Your task to perform on an android device: toggle notifications settings in the gmail app Image 0: 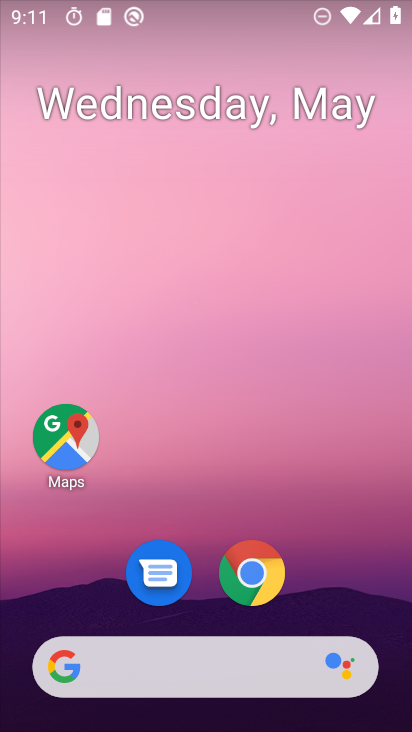
Step 0: drag from (396, 615) to (381, 208)
Your task to perform on an android device: toggle notifications settings in the gmail app Image 1: 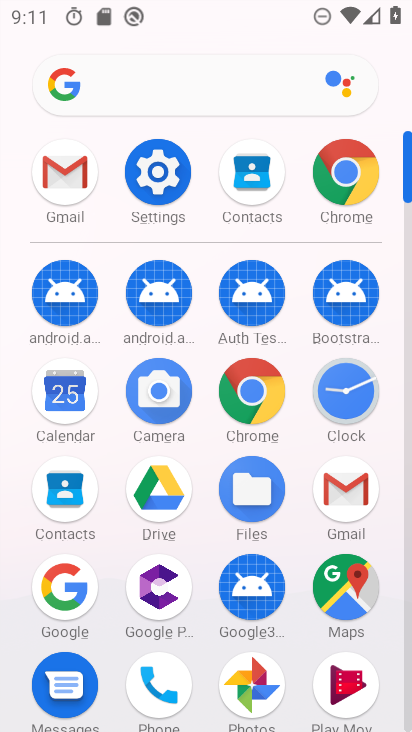
Step 1: click (350, 483)
Your task to perform on an android device: toggle notifications settings in the gmail app Image 2: 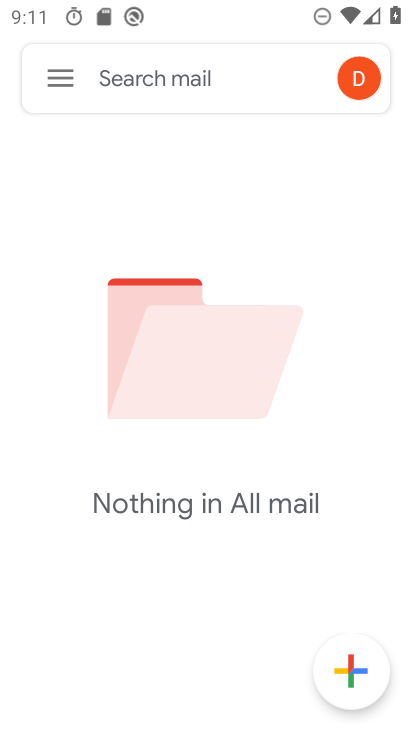
Step 2: click (67, 76)
Your task to perform on an android device: toggle notifications settings in the gmail app Image 3: 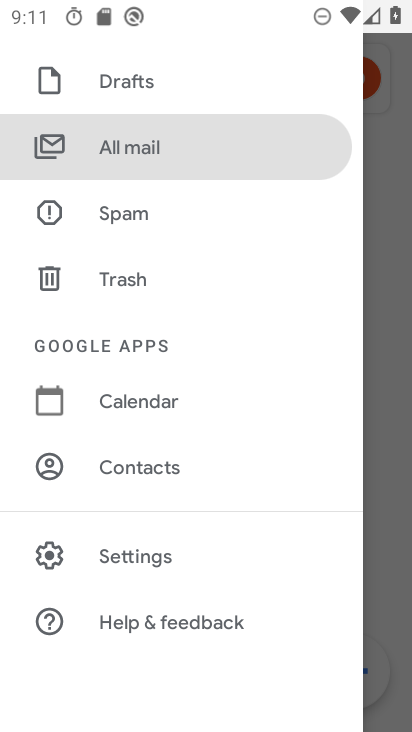
Step 3: click (140, 550)
Your task to perform on an android device: toggle notifications settings in the gmail app Image 4: 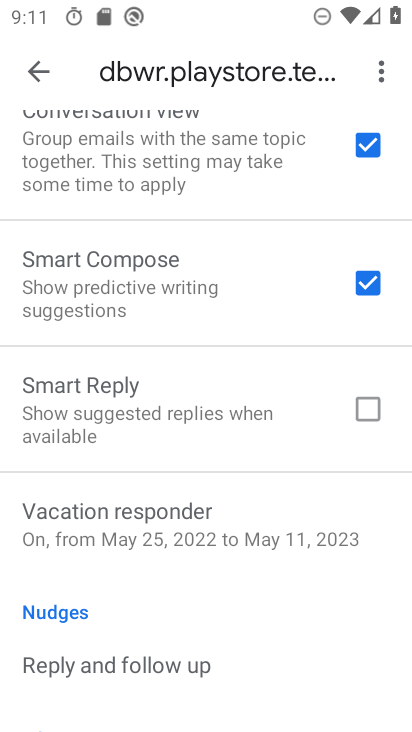
Step 4: click (32, 78)
Your task to perform on an android device: toggle notifications settings in the gmail app Image 5: 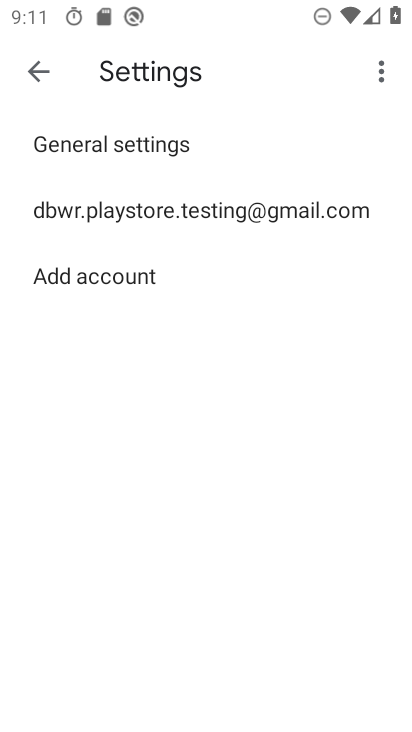
Step 5: click (65, 146)
Your task to perform on an android device: toggle notifications settings in the gmail app Image 6: 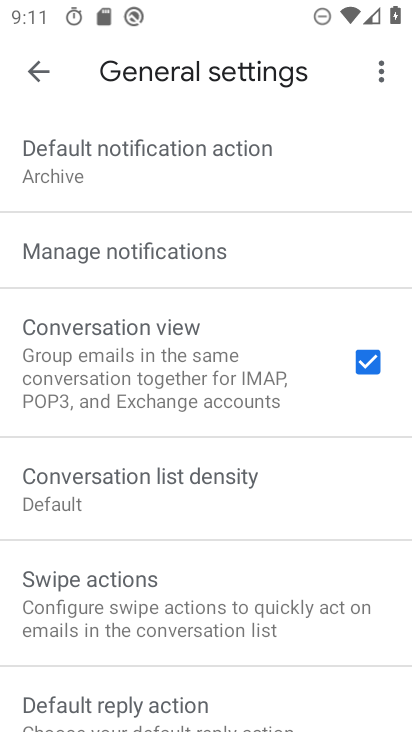
Step 6: click (160, 253)
Your task to perform on an android device: toggle notifications settings in the gmail app Image 7: 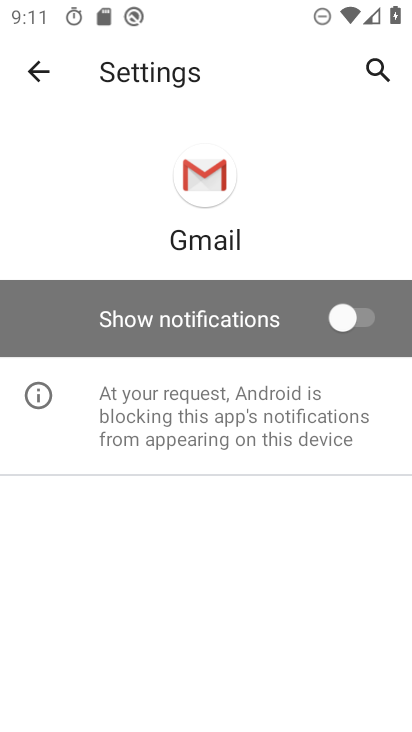
Step 7: click (364, 326)
Your task to perform on an android device: toggle notifications settings in the gmail app Image 8: 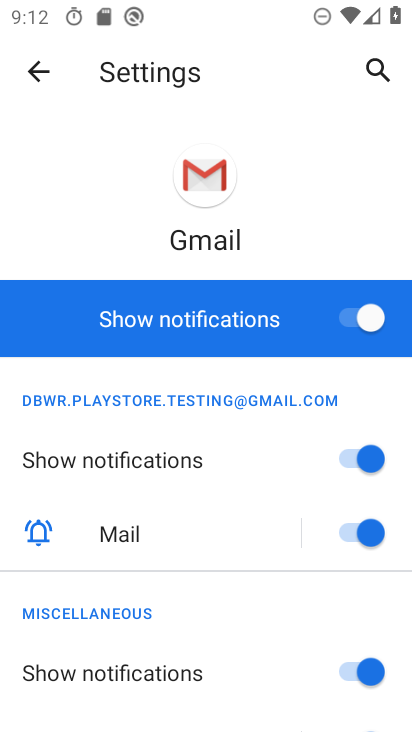
Step 8: task complete